Your task to perform on an android device: turn off data saver in the chrome app Image 0: 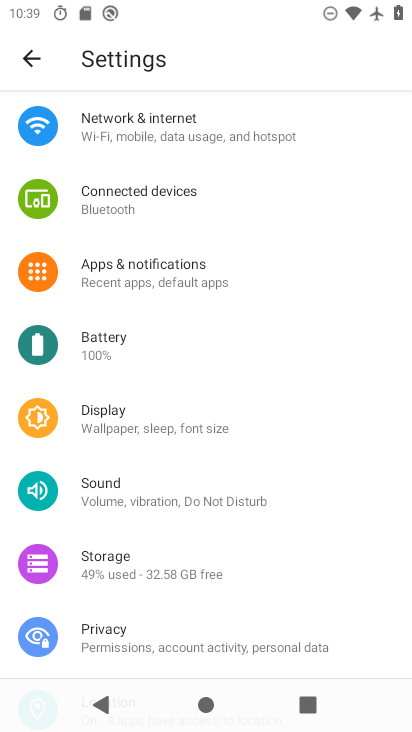
Step 0: press home button
Your task to perform on an android device: turn off data saver in the chrome app Image 1: 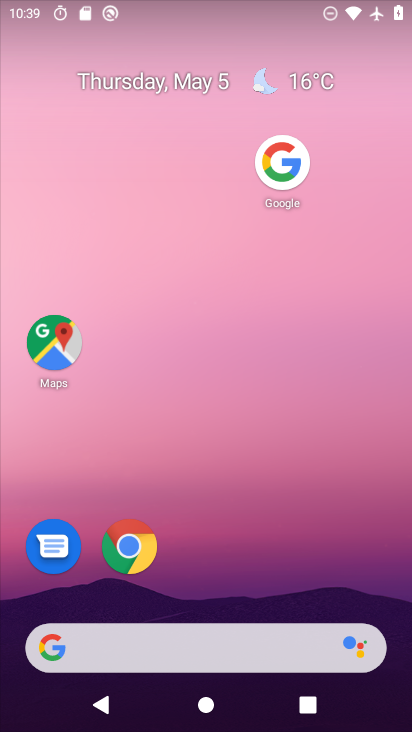
Step 1: drag from (145, 652) to (246, 174)
Your task to perform on an android device: turn off data saver in the chrome app Image 2: 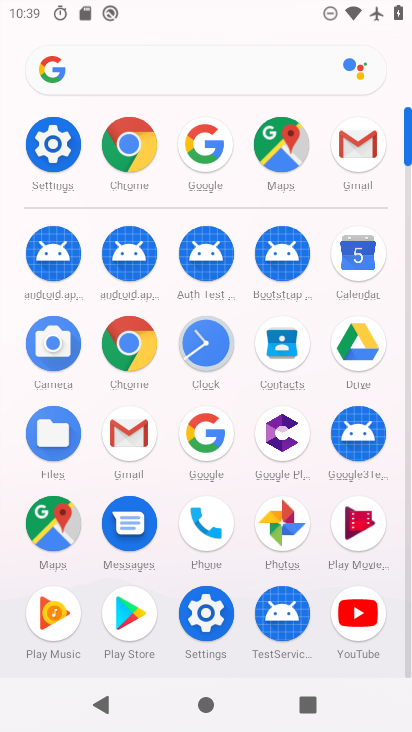
Step 2: click (134, 156)
Your task to perform on an android device: turn off data saver in the chrome app Image 3: 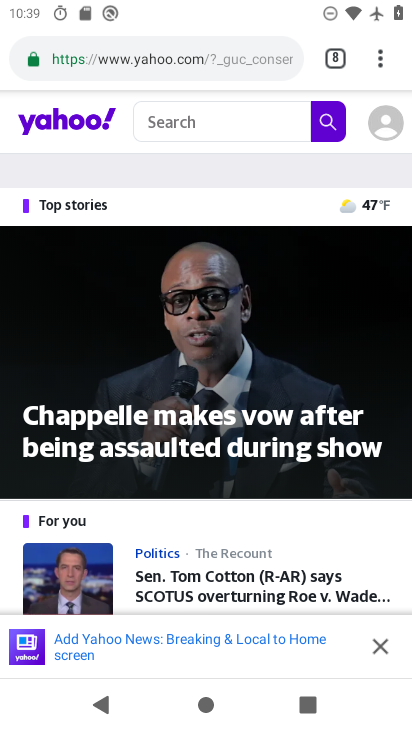
Step 3: drag from (377, 54) to (211, 577)
Your task to perform on an android device: turn off data saver in the chrome app Image 4: 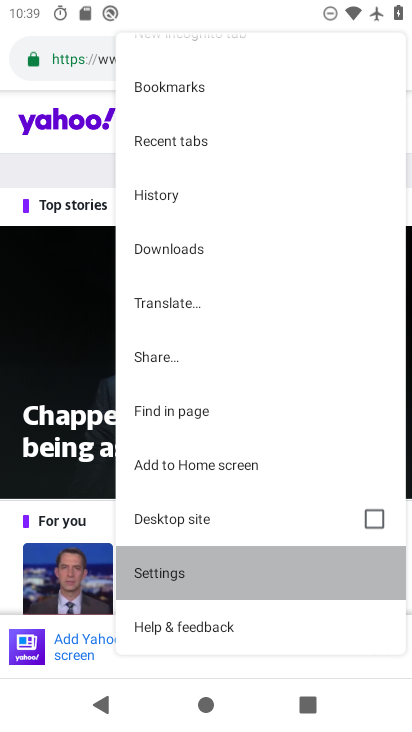
Step 4: click (211, 577)
Your task to perform on an android device: turn off data saver in the chrome app Image 5: 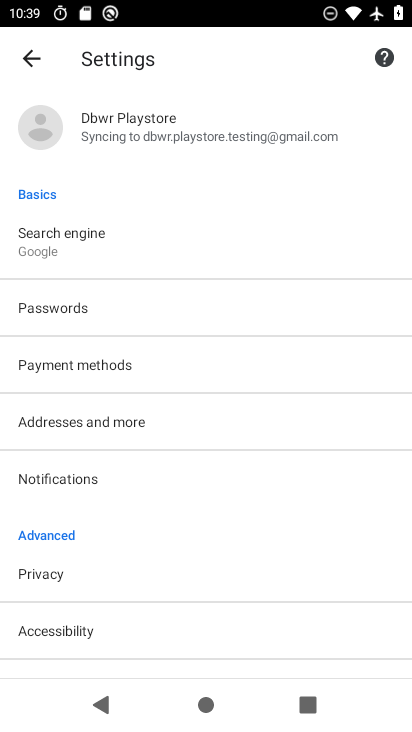
Step 5: drag from (124, 614) to (203, 357)
Your task to perform on an android device: turn off data saver in the chrome app Image 6: 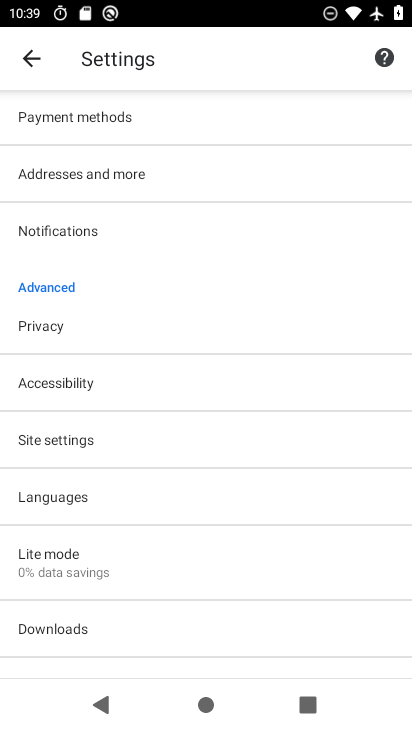
Step 6: click (94, 570)
Your task to perform on an android device: turn off data saver in the chrome app Image 7: 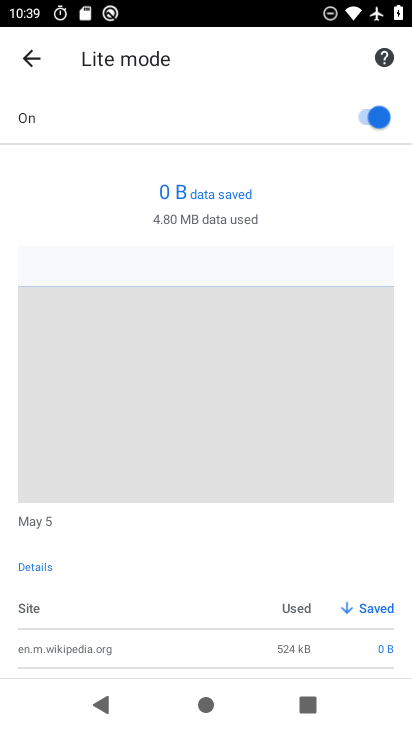
Step 7: click (365, 121)
Your task to perform on an android device: turn off data saver in the chrome app Image 8: 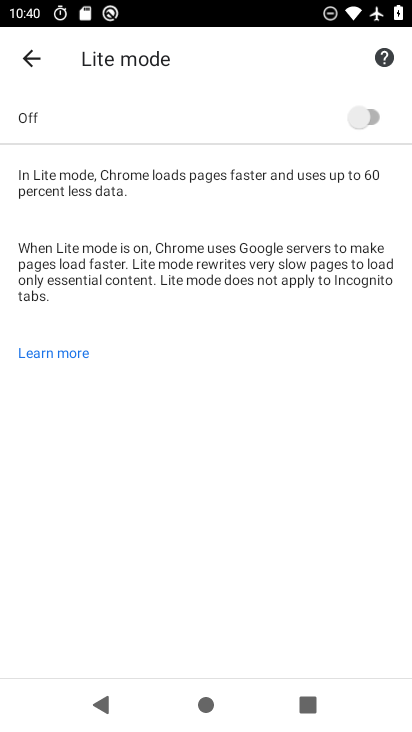
Step 8: task complete